Your task to perform on an android device: Open Google Chrome Image 0: 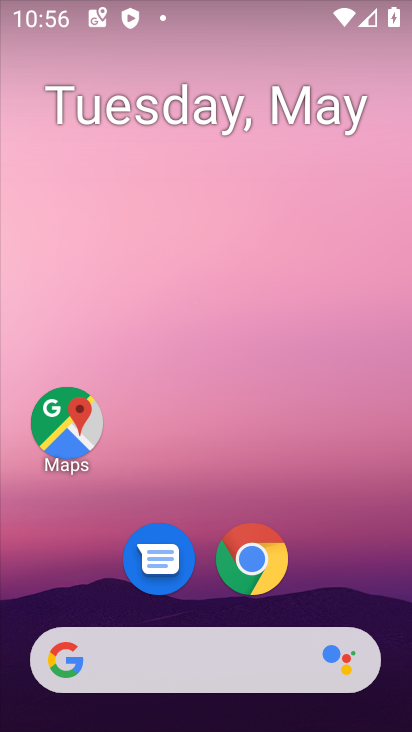
Step 0: click (268, 591)
Your task to perform on an android device: Open Google Chrome Image 1: 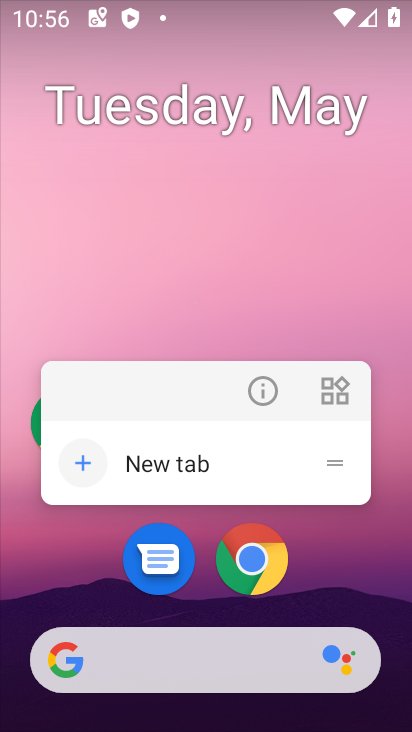
Step 1: click (254, 554)
Your task to perform on an android device: Open Google Chrome Image 2: 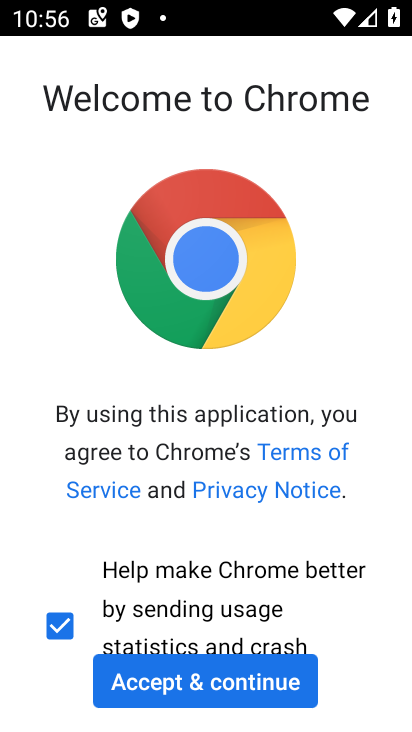
Step 2: click (237, 662)
Your task to perform on an android device: Open Google Chrome Image 3: 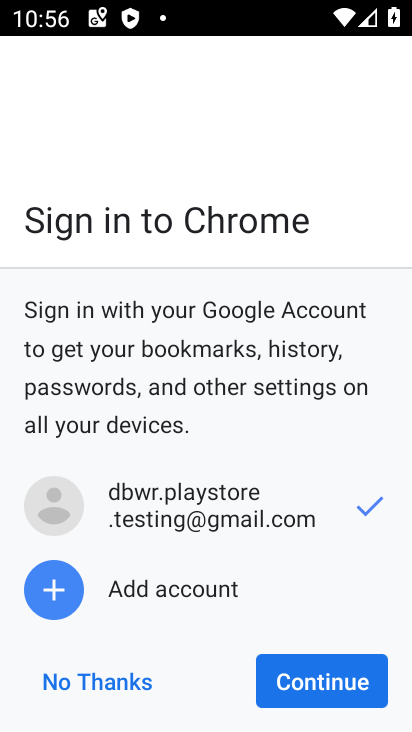
Step 3: click (240, 680)
Your task to perform on an android device: Open Google Chrome Image 4: 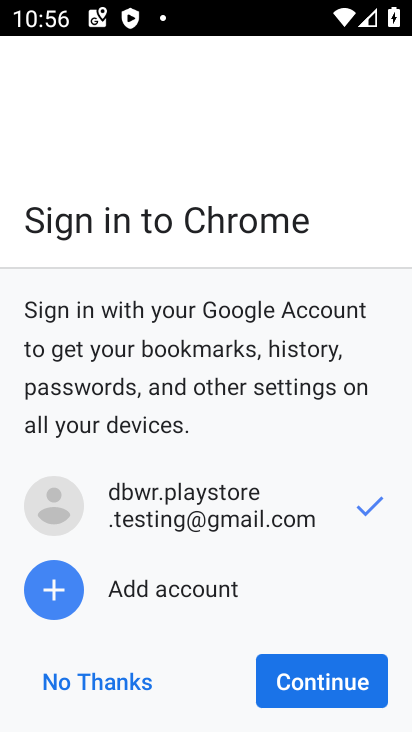
Step 4: click (364, 696)
Your task to perform on an android device: Open Google Chrome Image 5: 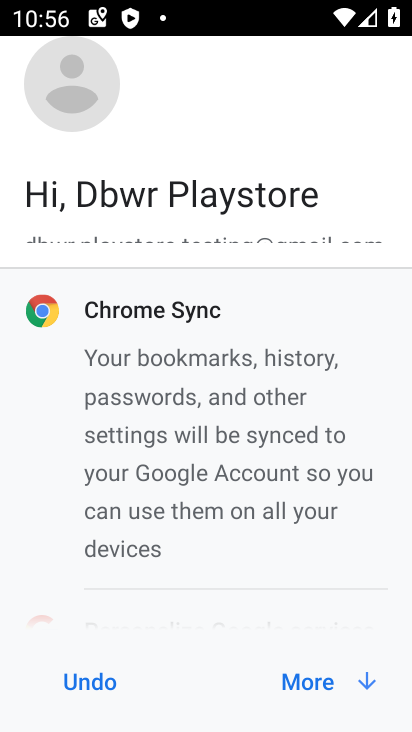
Step 5: click (364, 696)
Your task to perform on an android device: Open Google Chrome Image 6: 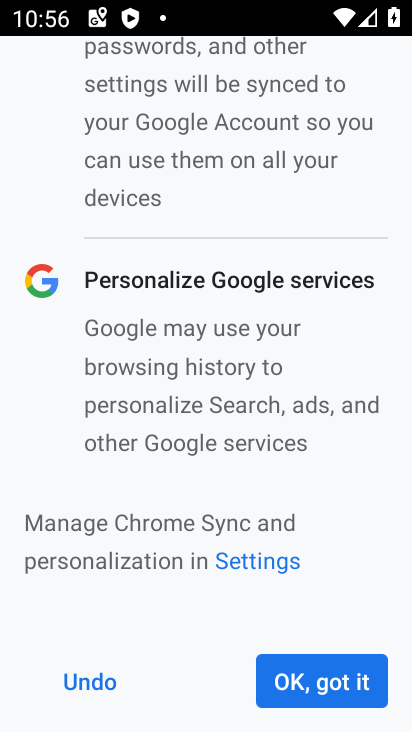
Step 6: click (364, 697)
Your task to perform on an android device: Open Google Chrome Image 7: 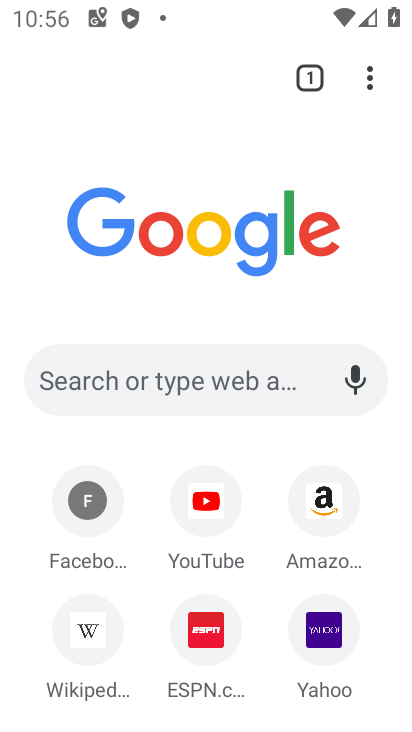
Step 7: task complete